Your task to perform on an android device: turn on bluetooth scan Image 0: 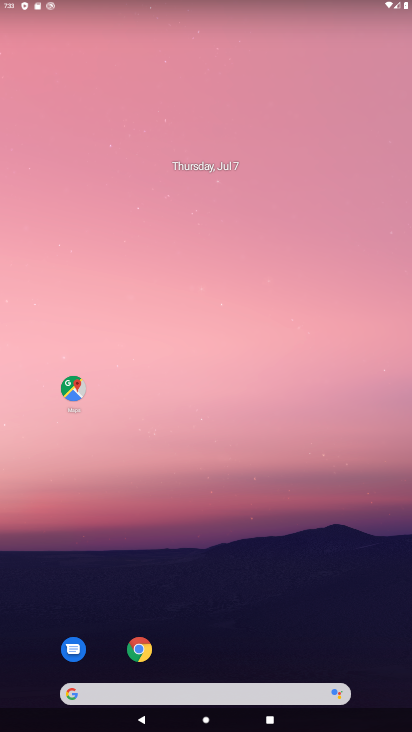
Step 0: drag from (239, 647) to (249, 134)
Your task to perform on an android device: turn on bluetooth scan Image 1: 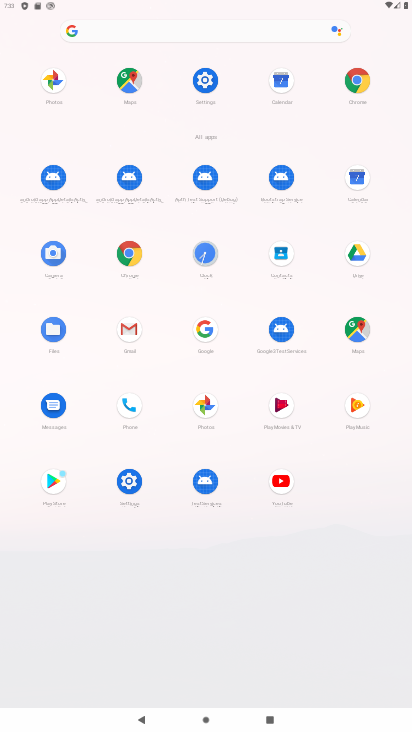
Step 1: click (197, 79)
Your task to perform on an android device: turn on bluetooth scan Image 2: 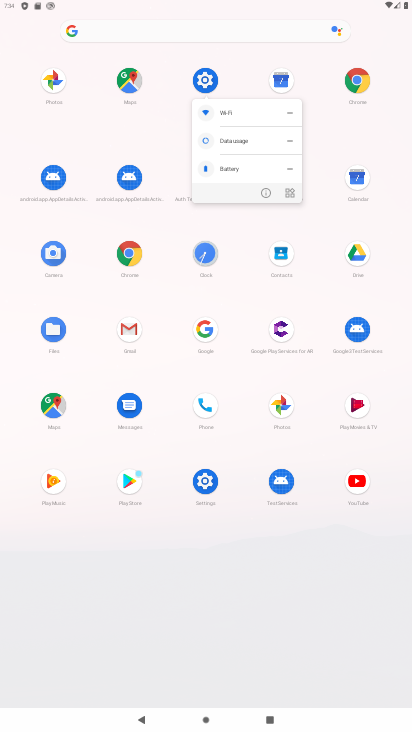
Step 2: click (201, 78)
Your task to perform on an android device: turn on bluetooth scan Image 3: 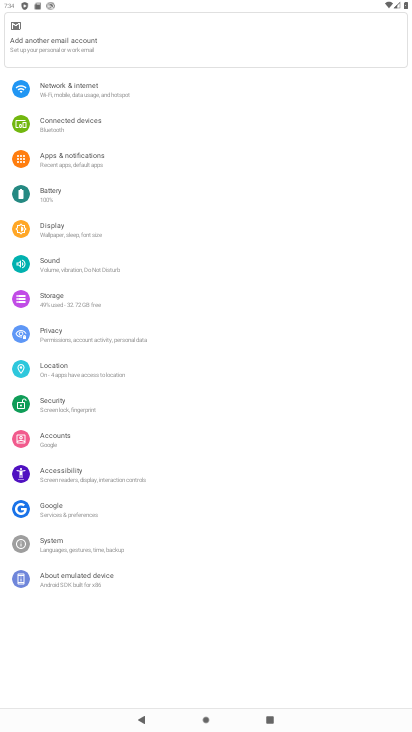
Step 3: click (78, 366)
Your task to perform on an android device: turn on bluetooth scan Image 4: 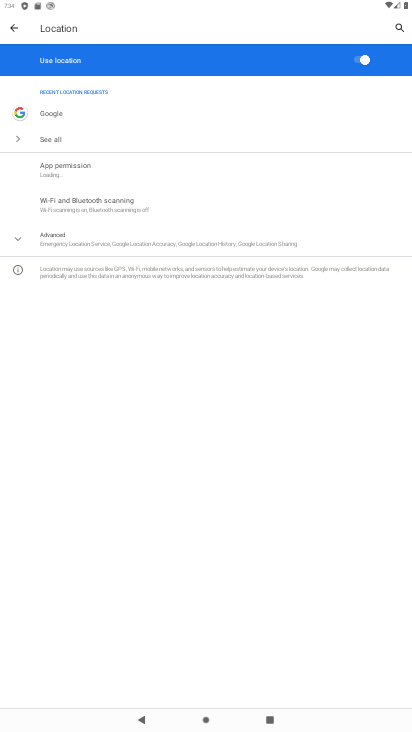
Step 4: click (142, 199)
Your task to perform on an android device: turn on bluetooth scan Image 5: 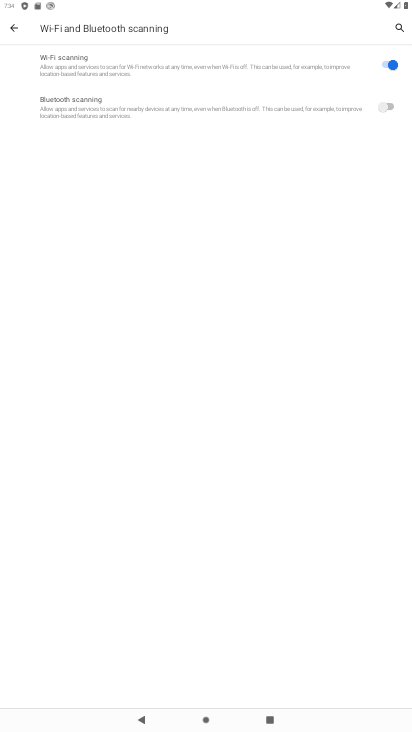
Step 5: click (386, 101)
Your task to perform on an android device: turn on bluetooth scan Image 6: 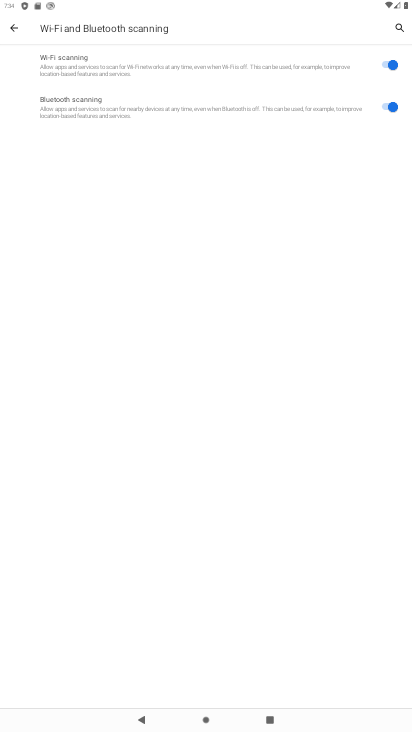
Step 6: task complete